Your task to perform on an android device: Clear all items from cart on amazon. Image 0: 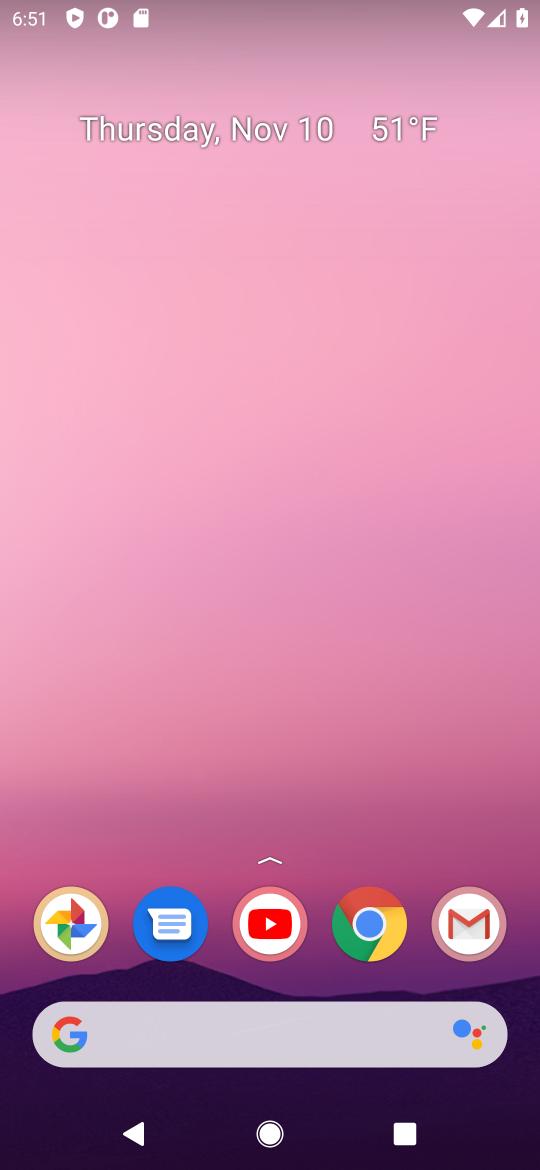
Step 0: click (375, 935)
Your task to perform on an android device: Clear all items from cart on amazon. Image 1: 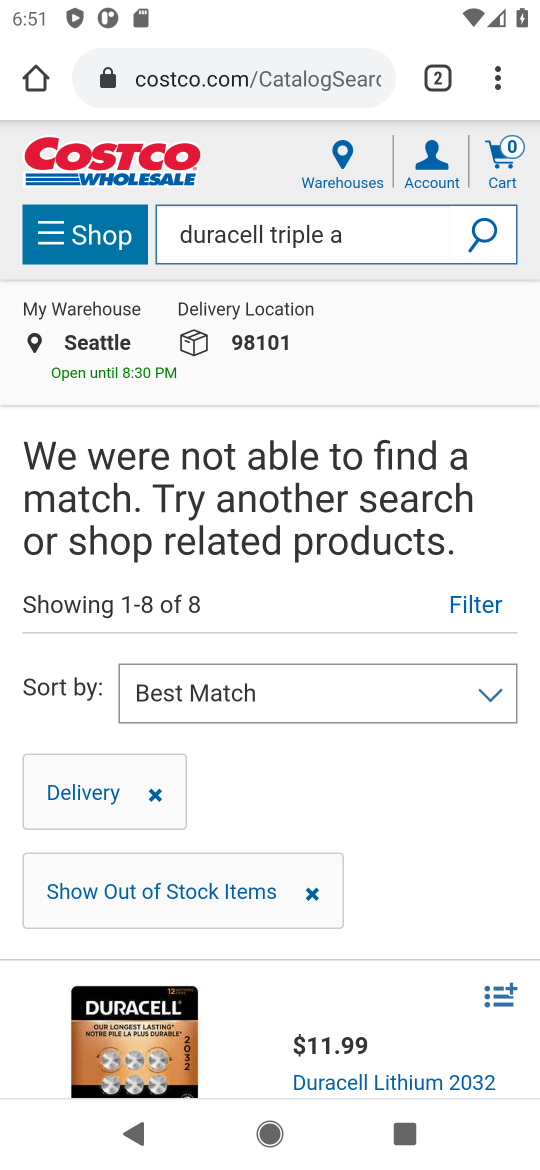
Step 1: click (210, 77)
Your task to perform on an android device: Clear all items from cart on amazon. Image 2: 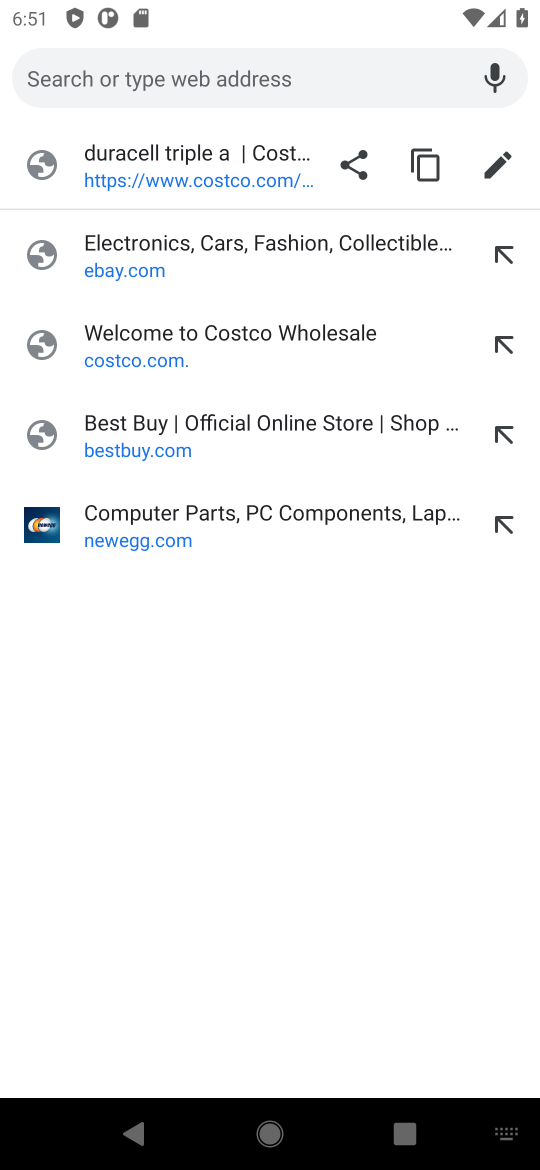
Step 2: type "amazon.com"
Your task to perform on an android device: Clear all items from cart on amazon. Image 3: 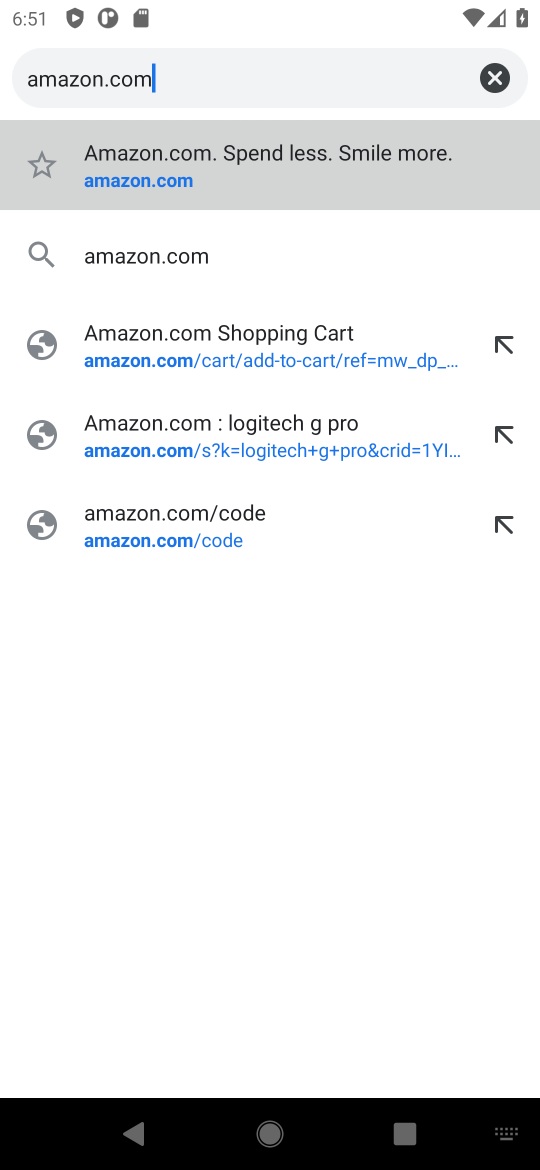
Step 3: click (143, 276)
Your task to perform on an android device: Clear all items from cart on amazon. Image 4: 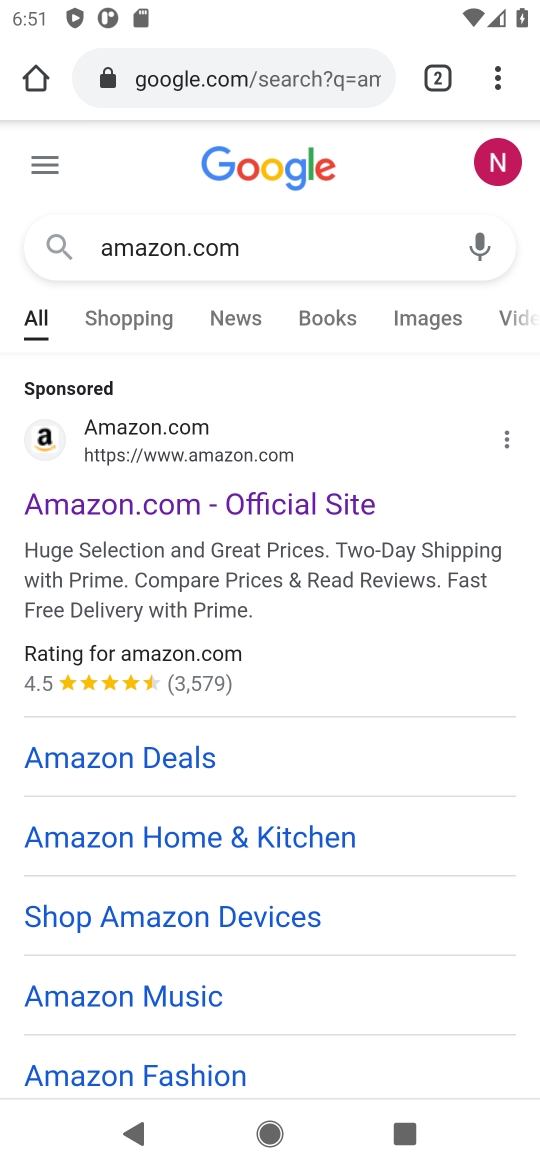
Step 4: drag from (188, 695) to (189, 388)
Your task to perform on an android device: Clear all items from cart on amazon. Image 5: 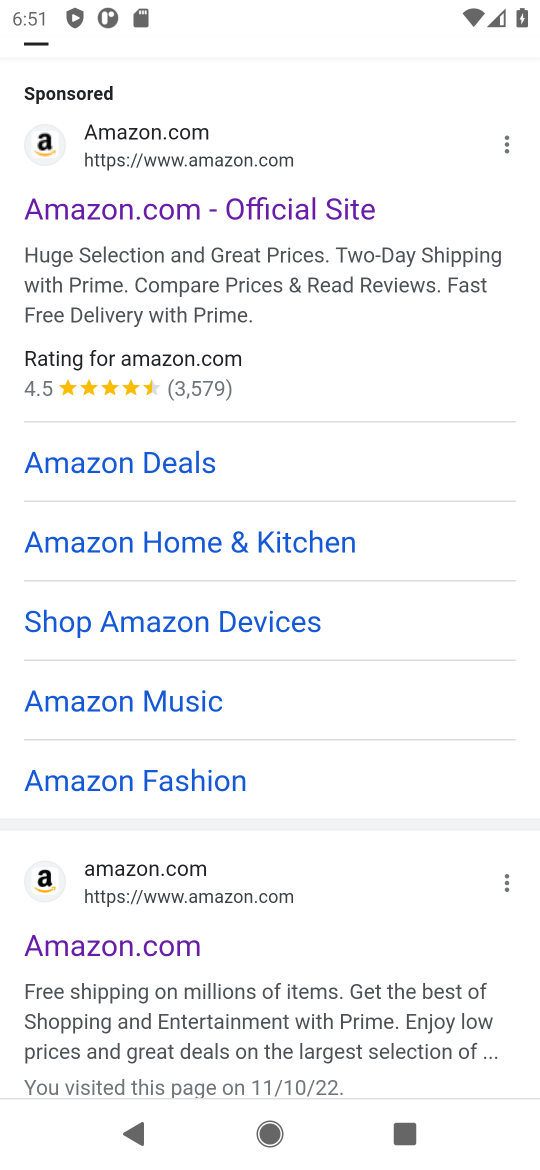
Step 5: click (127, 953)
Your task to perform on an android device: Clear all items from cart on amazon. Image 6: 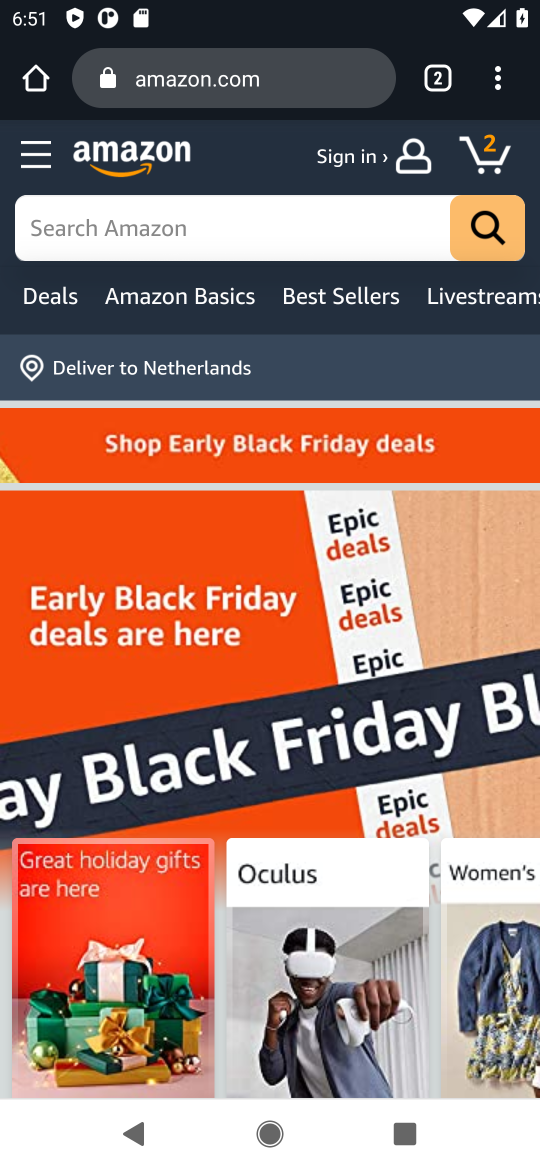
Step 6: click (507, 166)
Your task to perform on an android device: Clear all items from cart on amazon. Image 7: 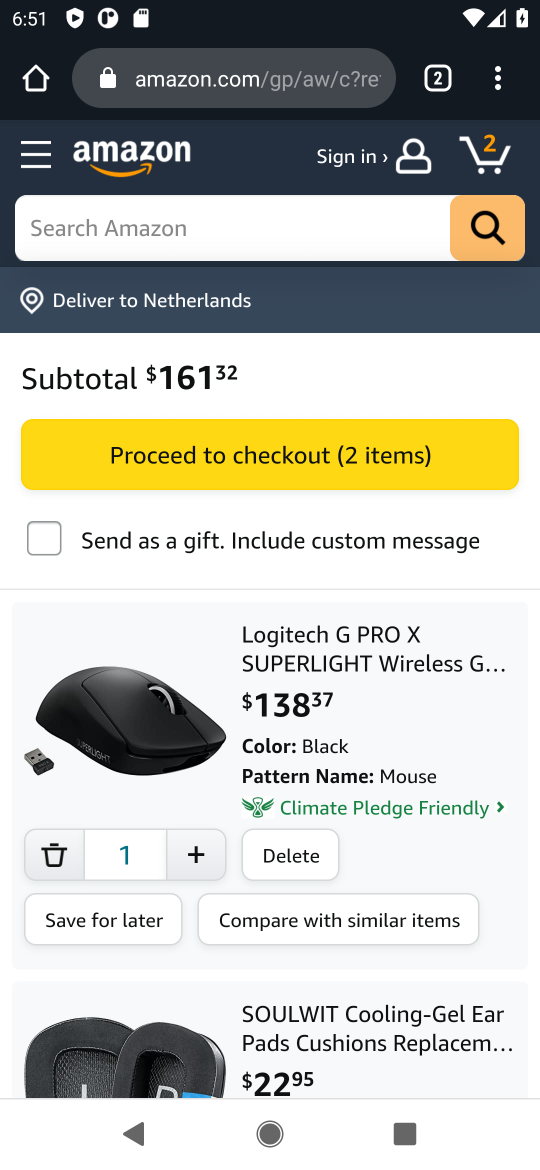
Step 7: click (314, 856)
Your task to perform on an android device: Clear all items from cart on amazon. Image 8: 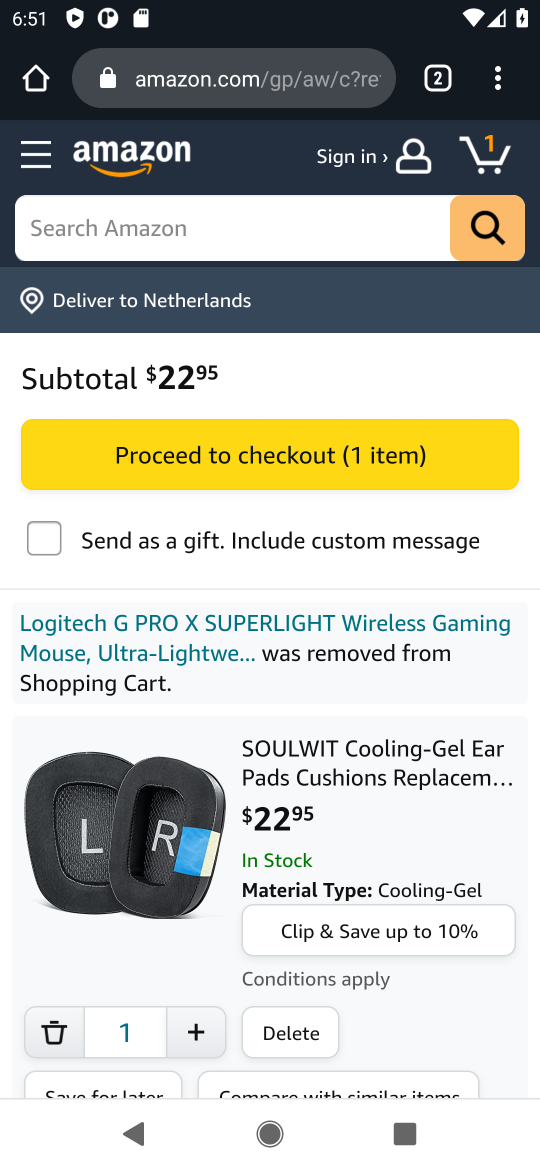
Step 8: click (271, 1037)
Your task to perform on an android device: Clear all items from cart on amazon. Image 9: 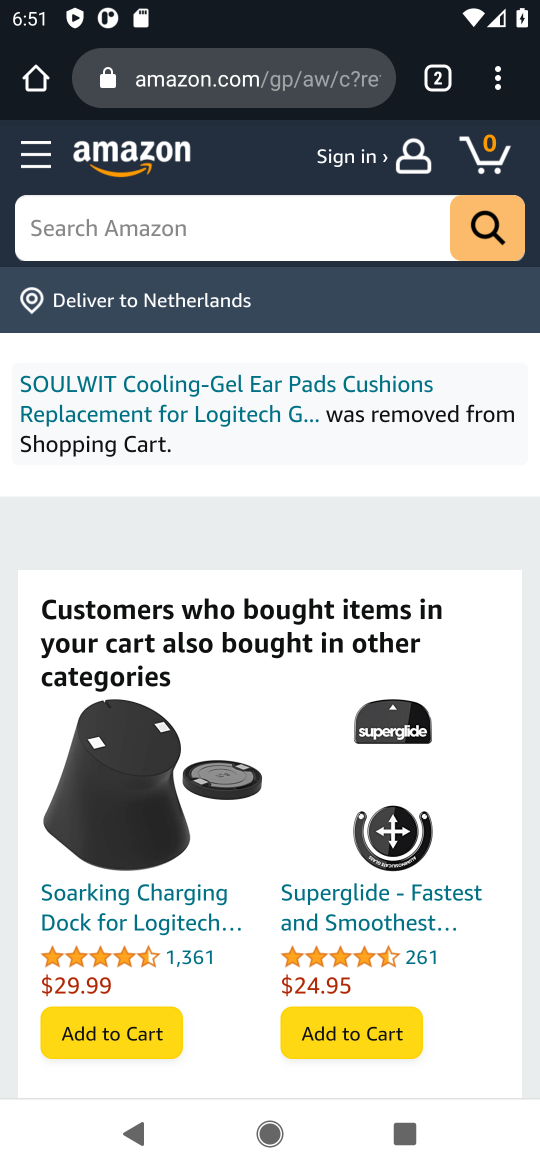
Step 9: task complete